Your task to perform on an android device: find snoozed emails in the gmail app Image 0: 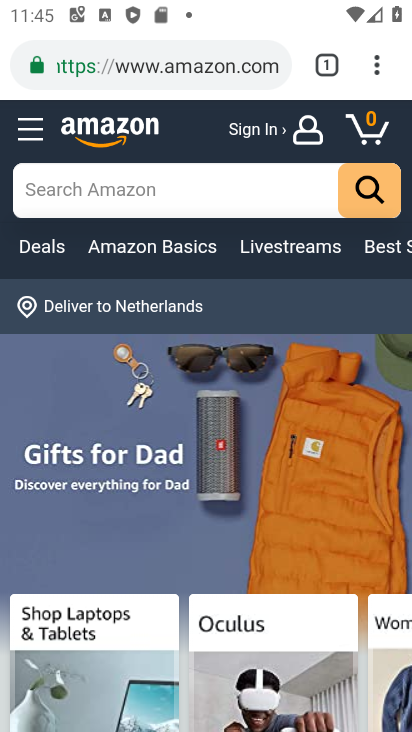
Step 0: press home button
Your task to perform on an android device: find snoozed emails in the gmail app Image 1: 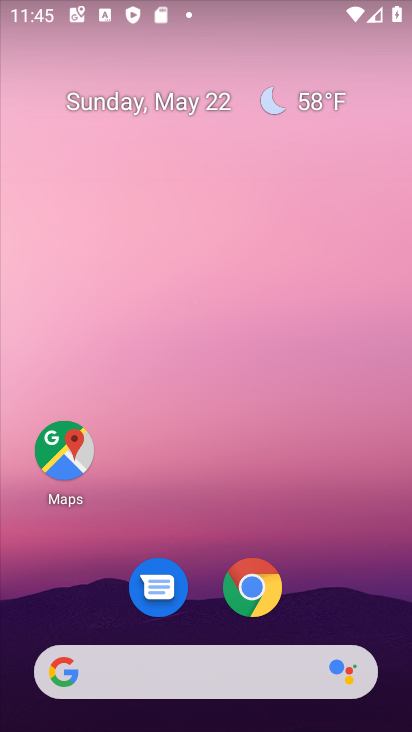
Step 1: drag from (320, 512) to (306, 28)
Your task to perform on an android device: find snoozed emails in the gmail app Image 2: 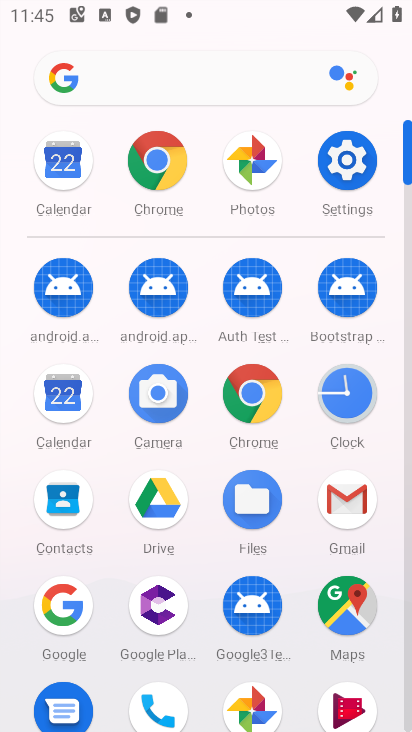
Step 2: click (343, 477)
Your task to perform on an android device: find snoozed emails in the gmail app Image 3: 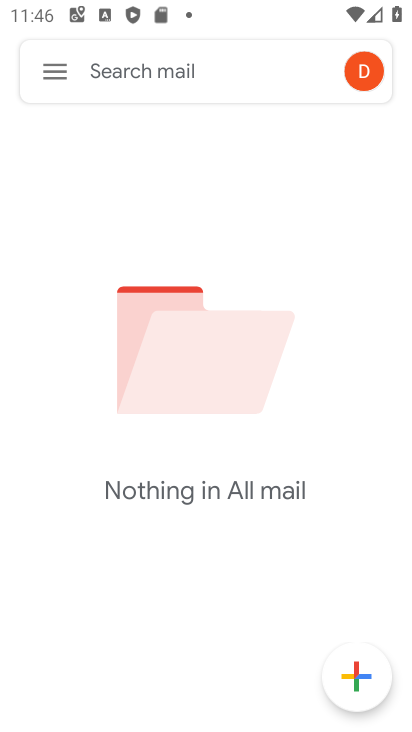
Step 3: task complete